Your task to perform on an android device: change alarm snooze length Image 0: 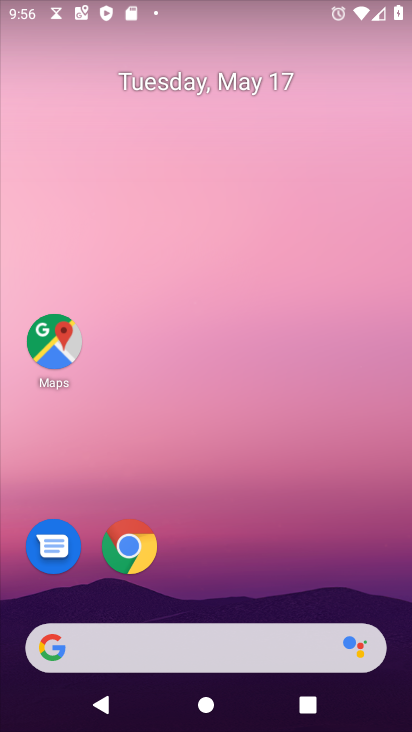
Step 0: drag from (272, 541) to (308, 67)
Your task to perform on an android device: change alarm snooze length Image 1: 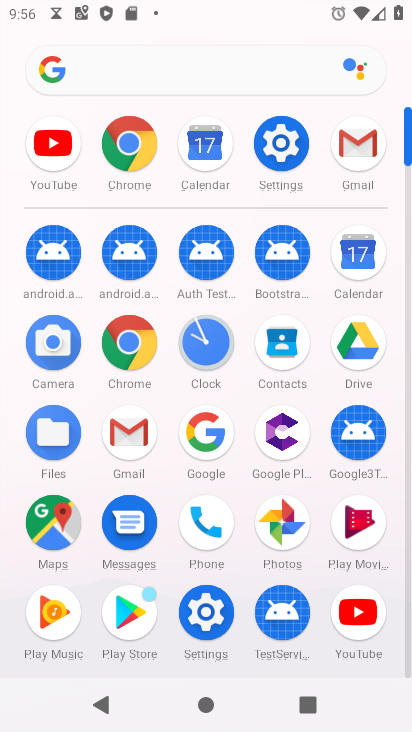
Step 1: click (206, 357)
Your task to perform on an android device: change alarm snooze length Image 2: 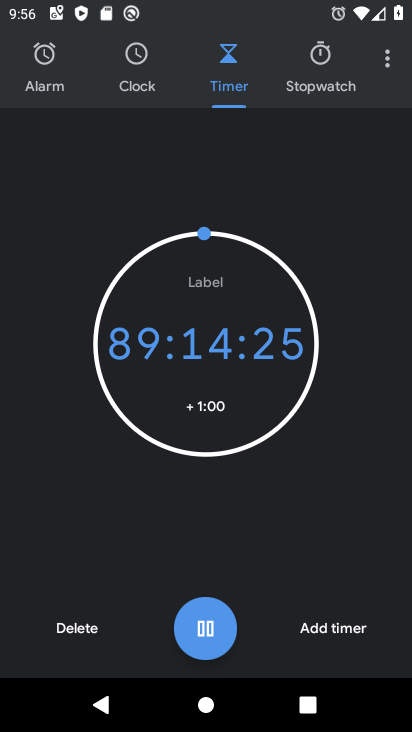
Step 2: click (380, 58)
Your task to perform on an android device: change alarm snooze length Image 3: 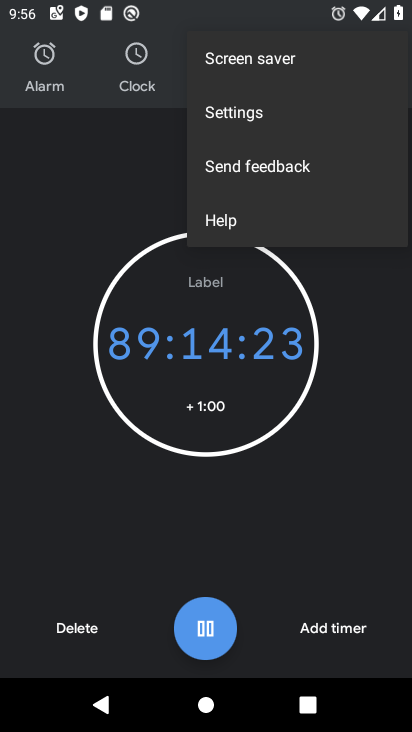
Step 3: click (257, 102)
Your task to perform on an android device: change alarm snooze length Image 4: 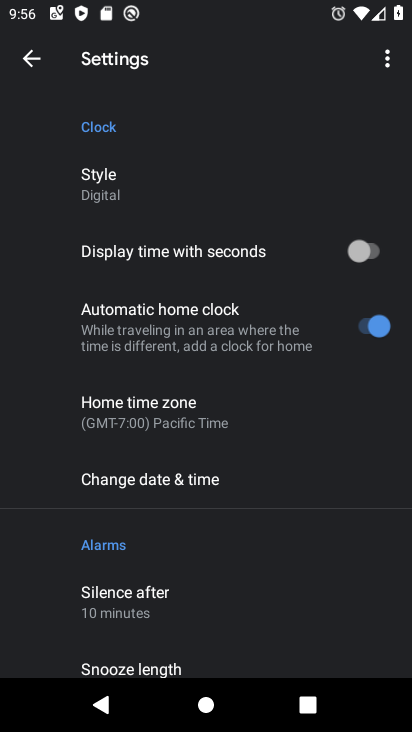
Step 4: drag from (121, 566) to (223, 326)
Your task to perform on an android device: change alarm snooze length Image 5: 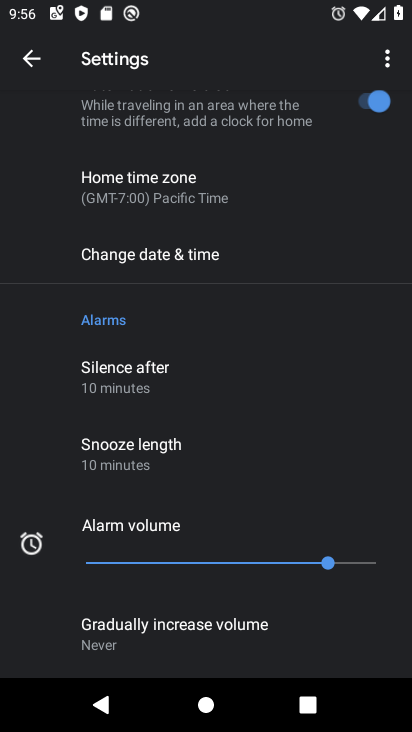
Step 5: click (191, 472)
Your task to perform on an android device: change alarm snooze length Image 6: 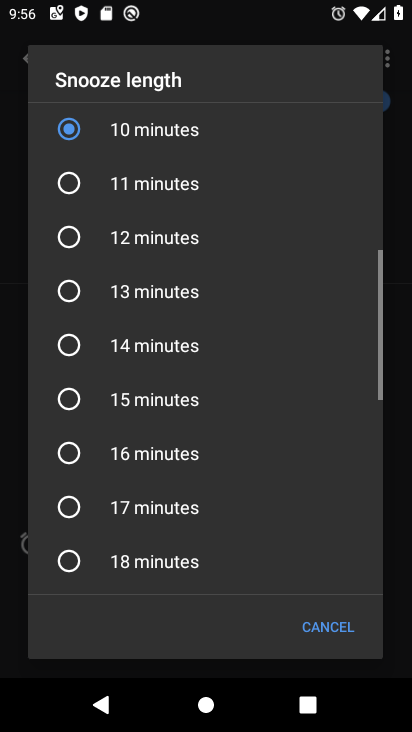
Step 6: click (152, 392)
Your task to perform on an android device: change alarm snooze length Image 7: 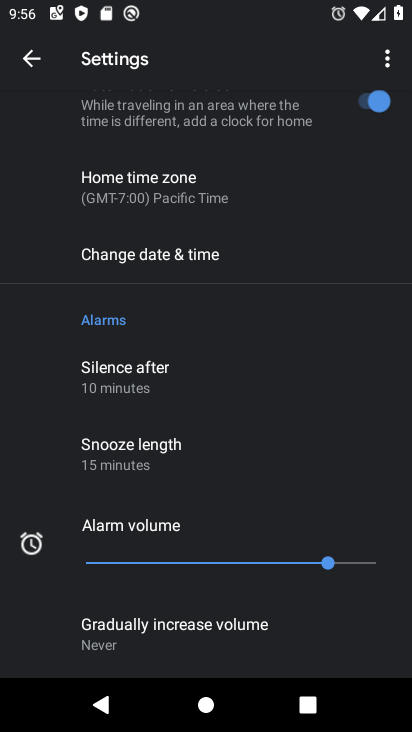
Step 7: task complete